Your task to perform on an android device: Search for pizza restaurants on Maps Image 0: 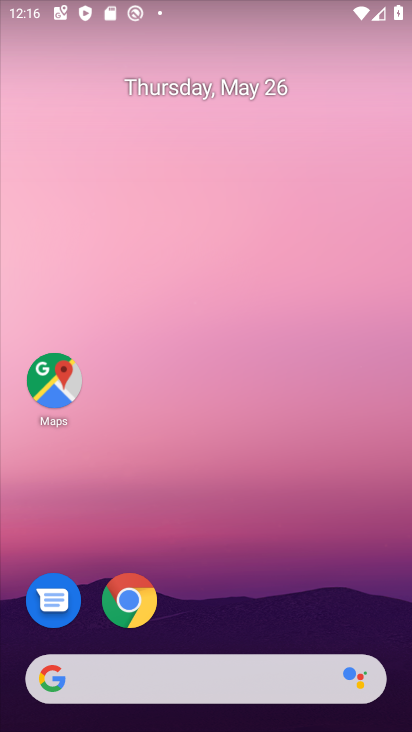
Step 0: click (133, 593)
Your task to perform on an android device: Search for pizza restaurants on Maps Image 1: 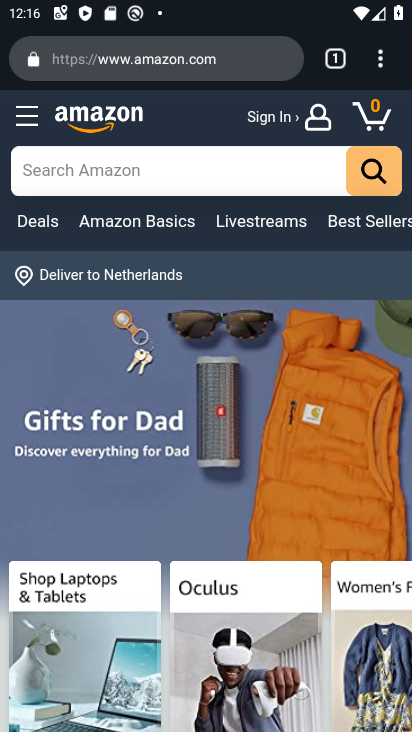
Step 1: press home button
Your task to perform on an android device: Search for pizza restaurants on Maps Image 2: 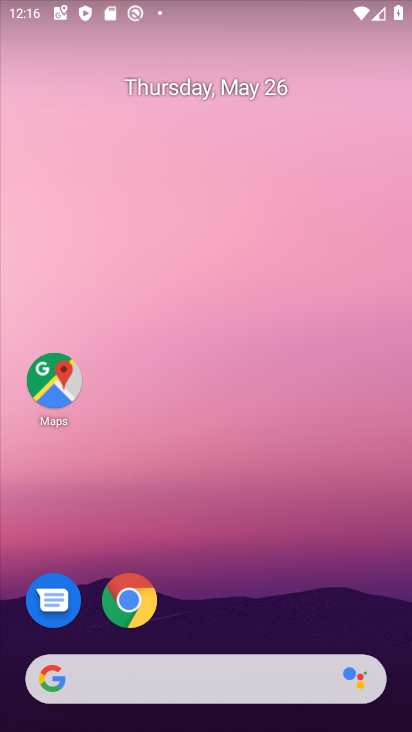
Step 2: click (72, 382)
Your task to perform on an android device: Search for pizza restaurants on Maps Image 3: 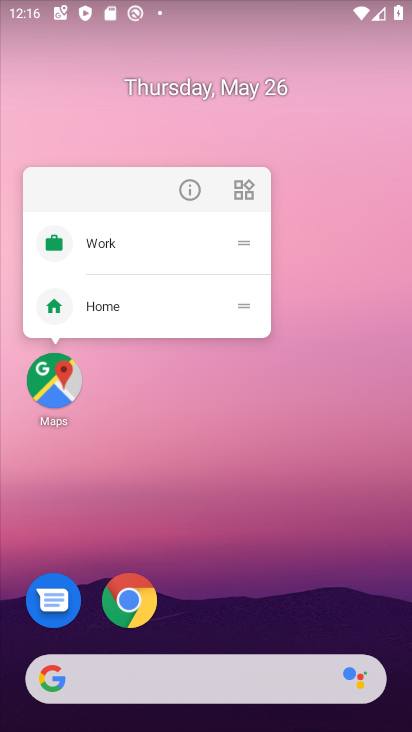
Step 3: click (384, 265)
Your task to perform on an android device: Search for pizza restaurants on Maps Image 4: 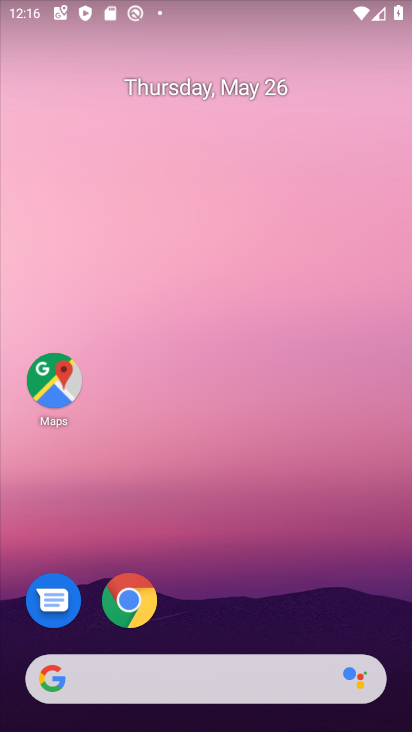
Step 4: click (52, 382)
Your task to perform on an android device: Search for pizza restaurants on Maps Image 5: 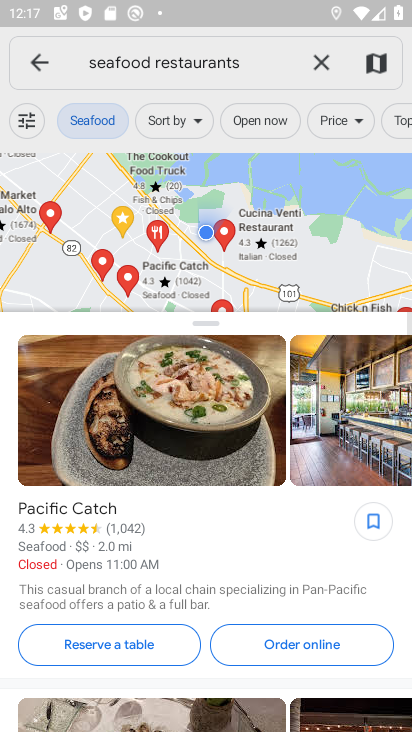
Step 5: click (255, 61)
Your task to perform on an android device: Search for pizza restaurants on Maps Image 6: 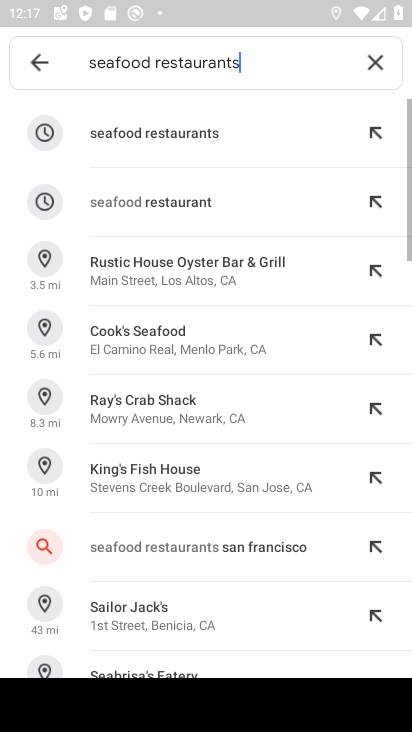
Step 6: click (374, 53)
Your task to perform on an android device: Search for pizza restaurants on Maps Image 7: 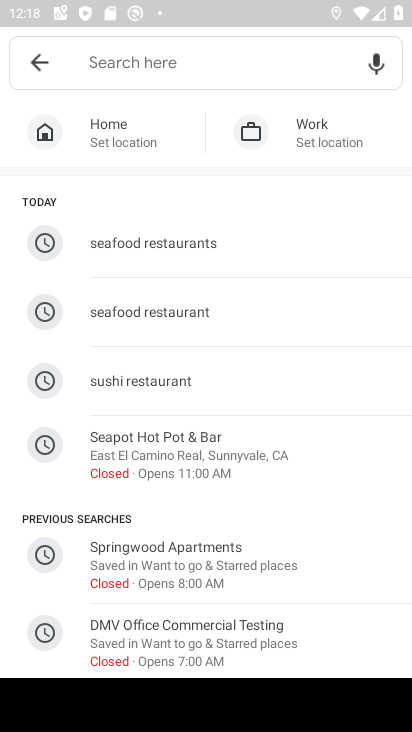
Step 7: type "pizza restaurents"
Your task to perform on an android device: Search for pizza restaurants on Maps Image 8: 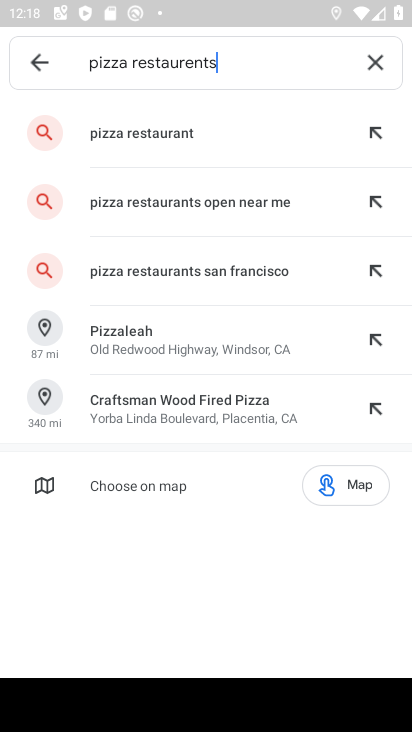
Step 8: press enter
Your task to perform on an android device: Search for pizza restaurants on Maps Image 9: 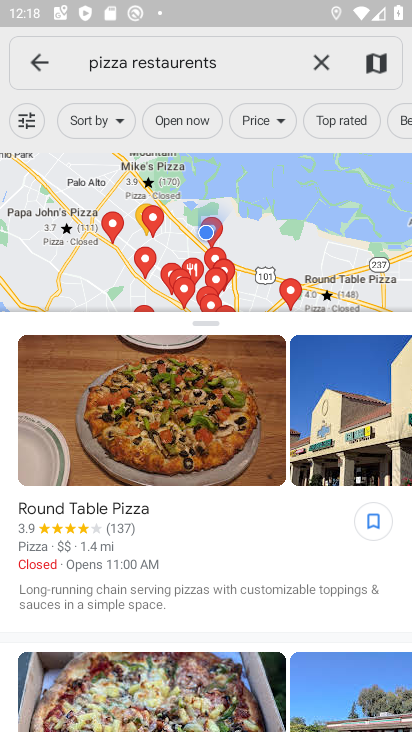
Step 9: task complete